Your task to perform on an android device: turn off sleep mode Image 0: 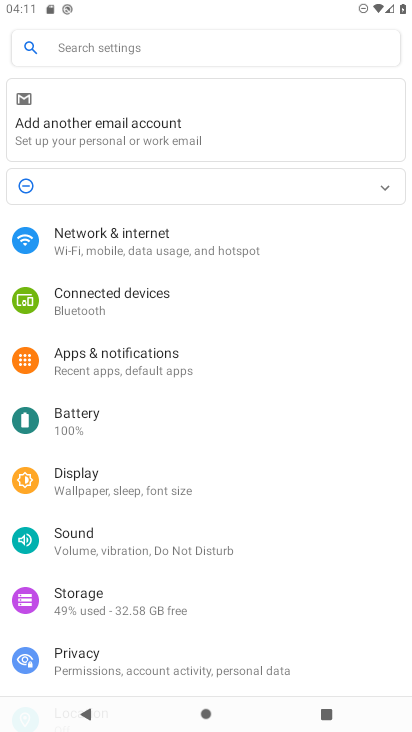
Step 0: drag from (237, 591) to (295, 177)
Your task to perform on an android device: turn off sleep mode Image 1: 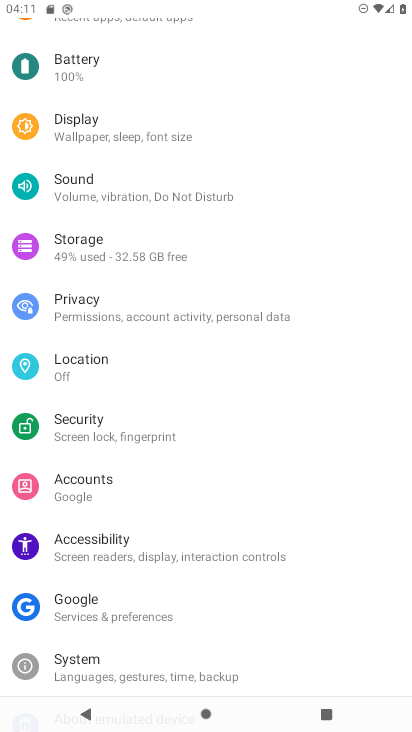
Step 1: task complete